Your task to perform on an android device: toggle notification dots Image 0: 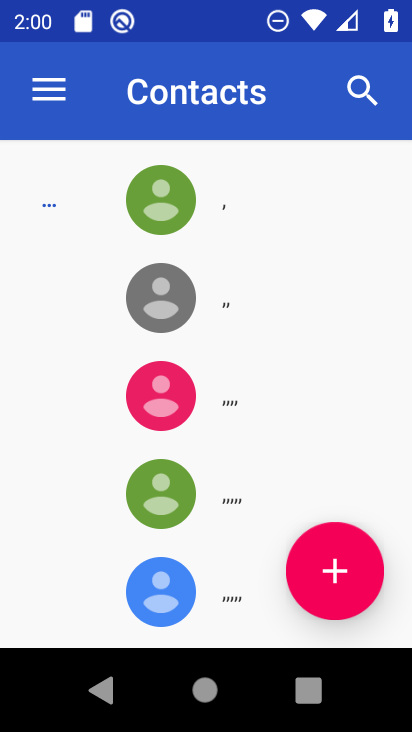
Step 0: press home button
Your task to perform on an android device: toggle notification dots Image 1: 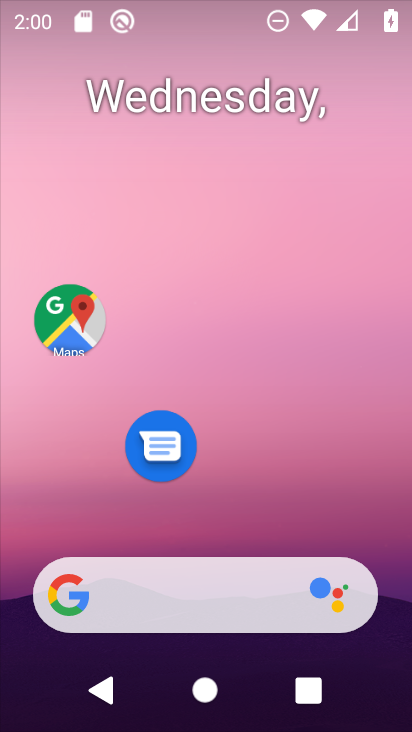
Step 1: drag from (200, 522) to (214, 0)
Your task to perform on an android device: toggle notification dots Image 2: 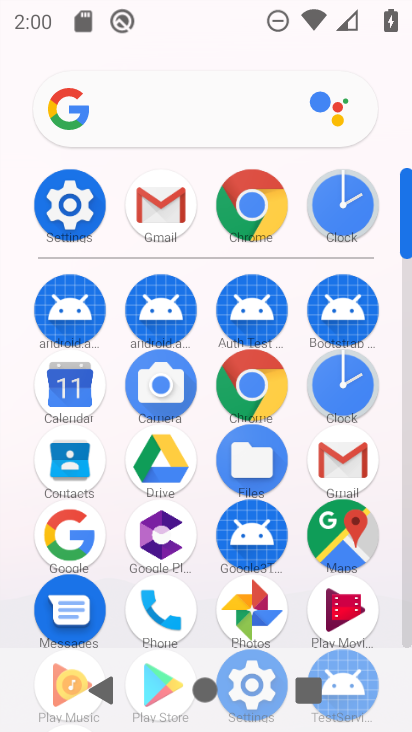
Step 2: click (407, 449)
Your task to perform on an android device: toggle notification dots Image 3: 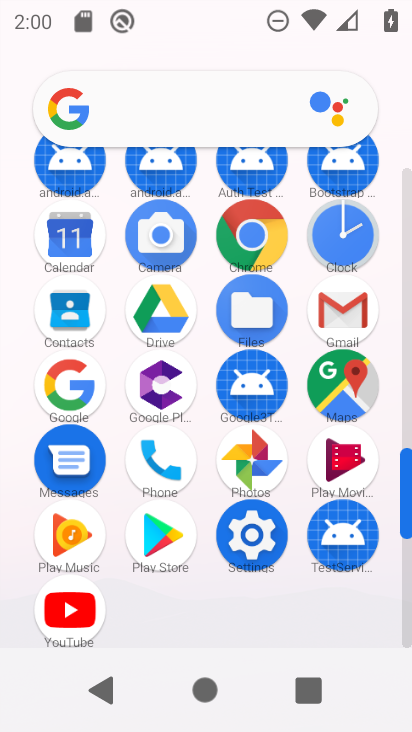
Step 3: click (248, 559)
Your task to perform on an android device: toggle notification dots Image 4: 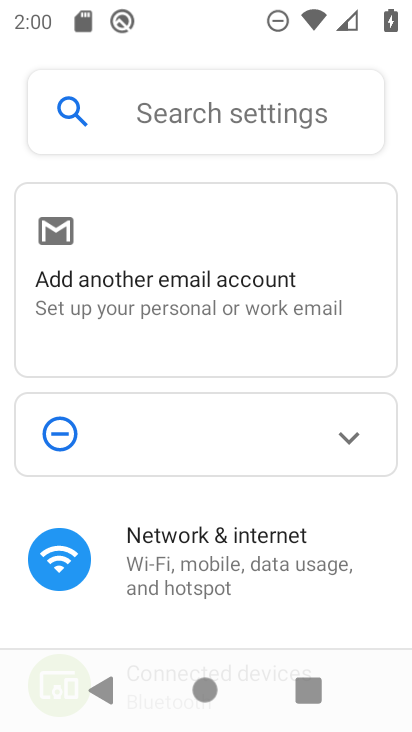
Step 4: drag from (193, 613) to (209, 318)
Your task to perform on an android device: toggle notification dots Image 5: 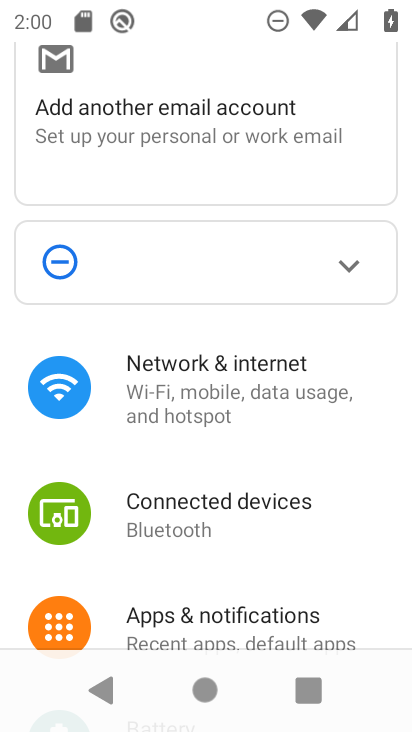
Step 5: drag from (209, 318) to (213, 226)
Your task to perform on an android device: toggle notification dots Image 6: 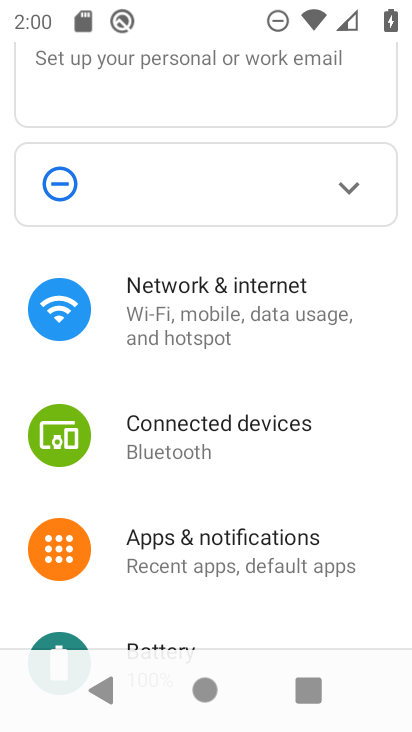
Step 6: drag from (175, 400) to (256, 5)
Your task to perform on an android device: toggle notification dots Image 7: 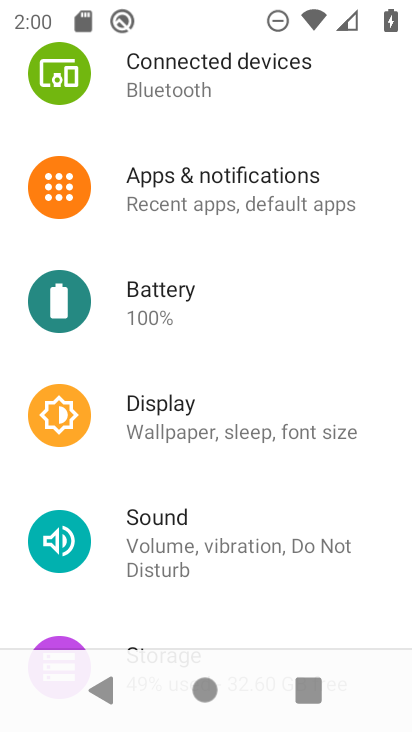
Step 7: click (139, 213)
Your task to perform on an android device: toggle notification dots Image 8: 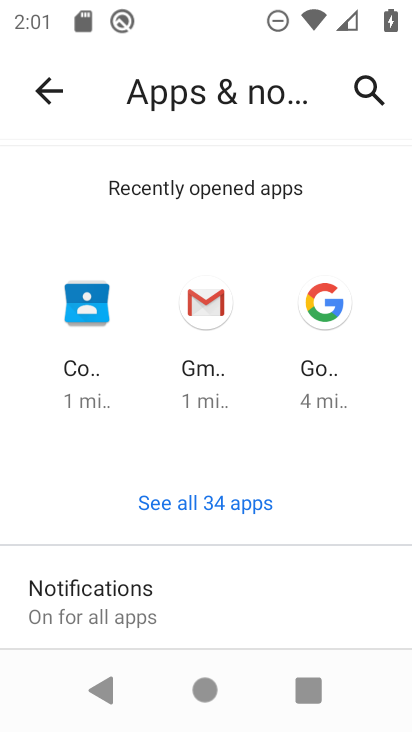
Step 8: drag from (99, 499) to (171, 136)
Your task to perform on an android device: toggle notification dots Image 9: 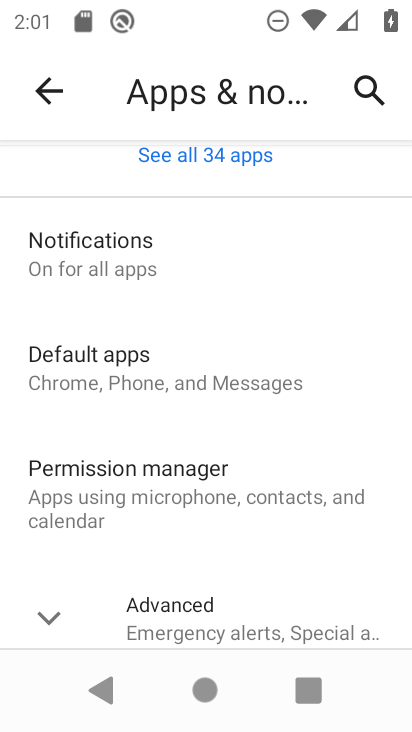
Step 9: drag from (157, 515) to (151, 249)
Your task to perform on an android device: toggle notification dots Image 10: 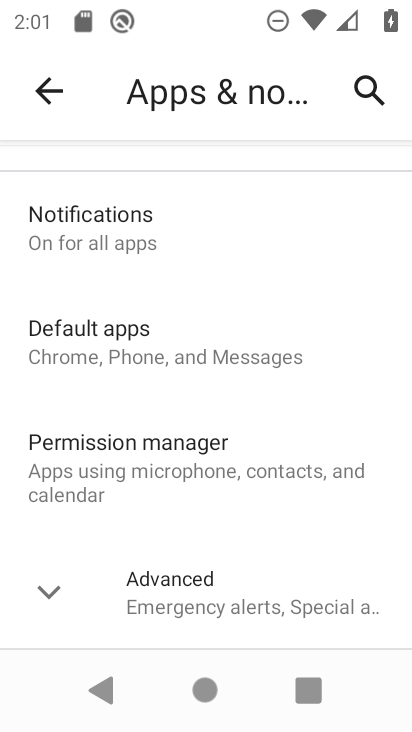
Step 10: click (173, 256)
Your task to perform on an android device: toggle notification dots Image 11: 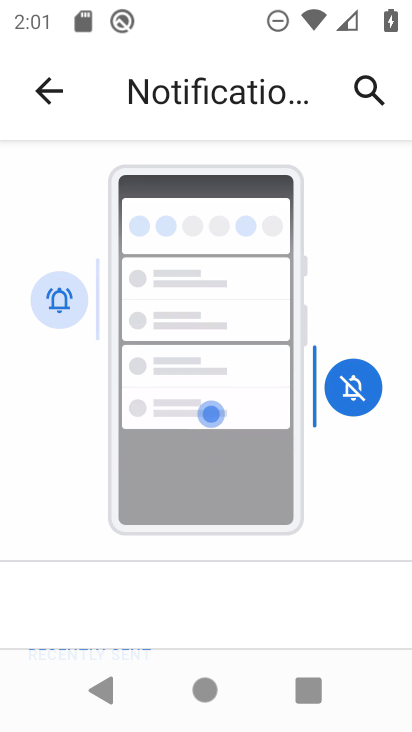
Step 11: drag from (114, 427) to (214, 29)
Your task to perform on an android device: toggle notification dots Image 12: 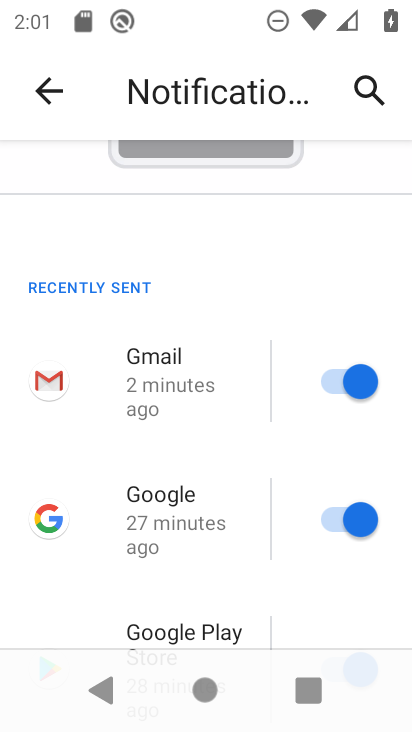
Step 12: drag from (184, 572) to (240, 150)
Your task to perform on an android device: toggle notification dots Image 13: 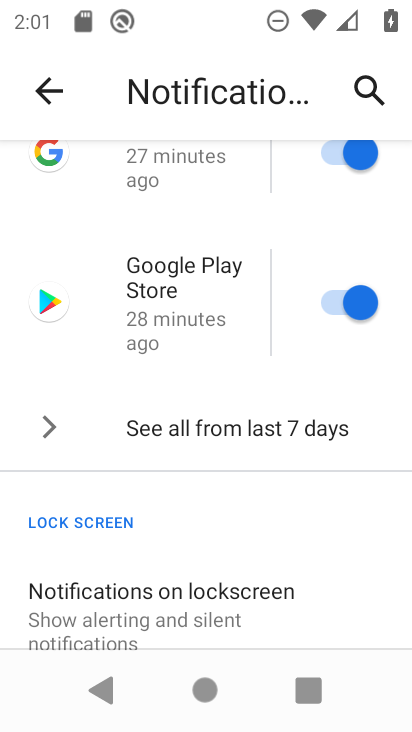
Step 13: drag from (107, 559) to (226, 125)
Your task to perform on an android device: toggle notification dots Image 14: 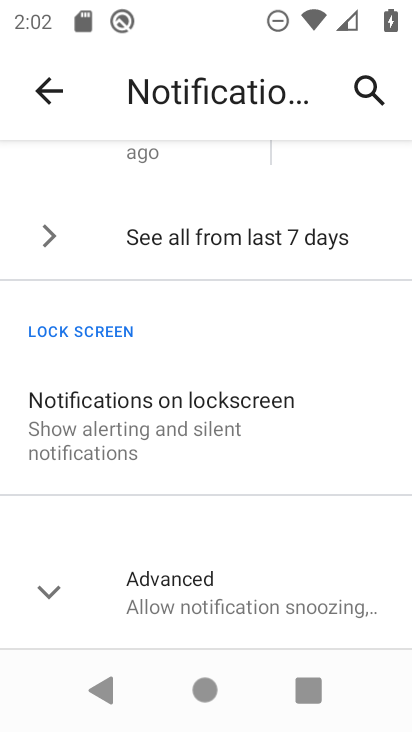
Step 14: drag from (182, 516) to (191, 242)
Your task to perform on an android device: toggle notification dots Image 15: 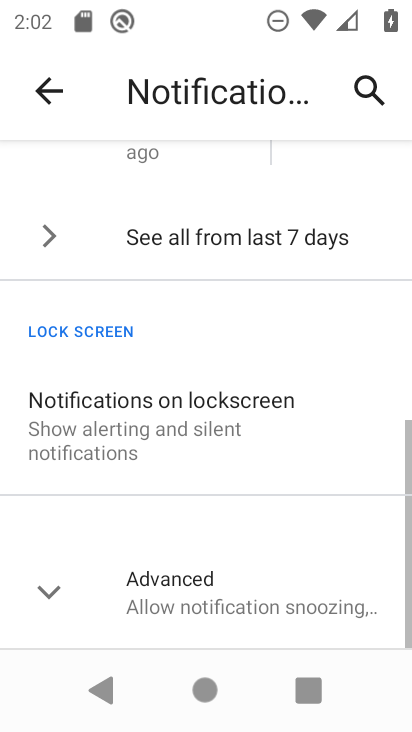
Step 15: click (191, 242)
Your task to perform on an android device: toggle notification dots Image 16: 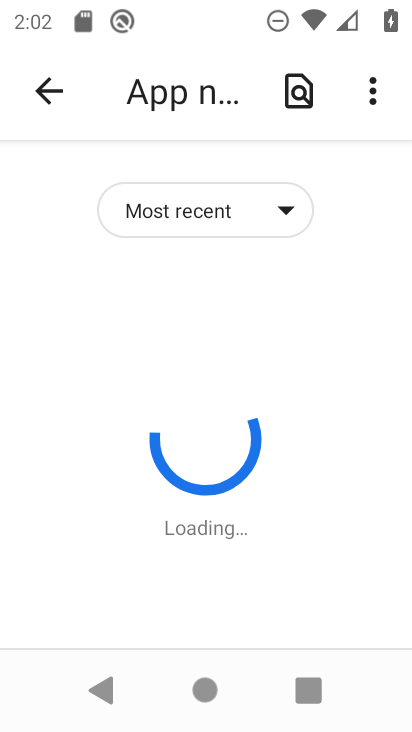
Step 16: click (178, 571)
Your task to perform on an android device: toggle notification dots Image 17: 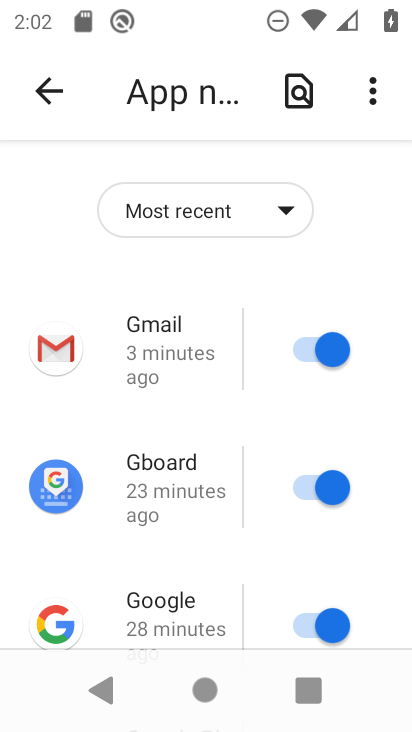
Step 17: drag from (178, 571) to (228, 102)
Your task to perform on an android device: toggle notification dots Image 18: 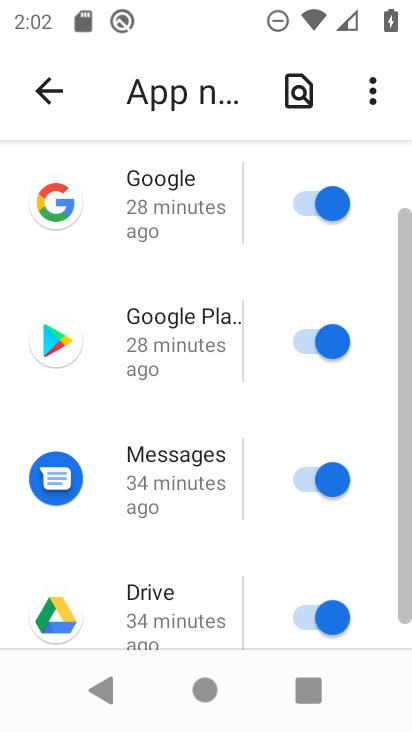
Step 18: click (69, 94)
Your task to perform on an android device: toggle notification dots Image 19: 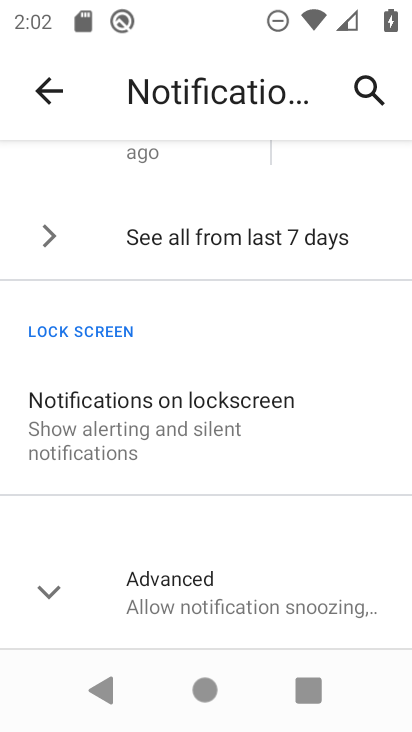
Step 19: drag from (199, 587) to (217, 429)
Your task to perform on an android device: toggle notification dots Image 20: 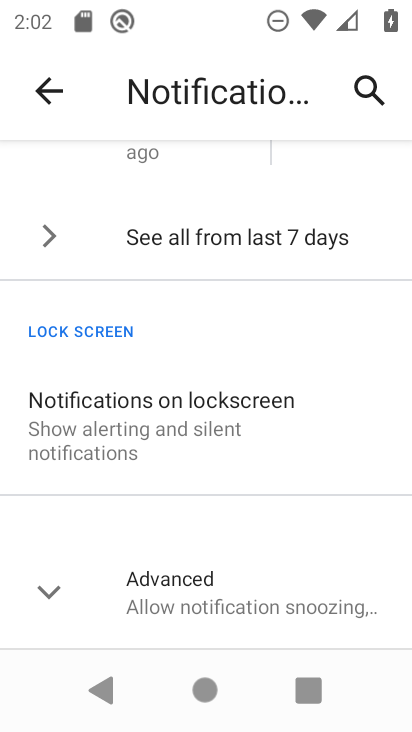
Step 20: click (132, 533)
Your task to perform on an android device: toggle notification dots Image 21: 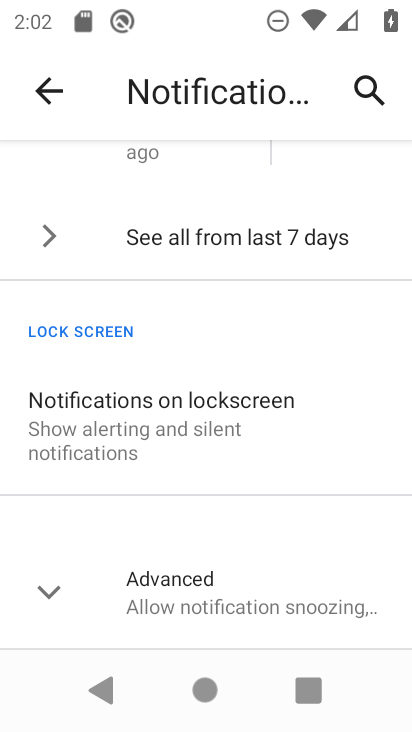
Step 21: drag from (132, 533) to (130, 457)
Your task to perform on an android device: toggle notification dots Image 22: 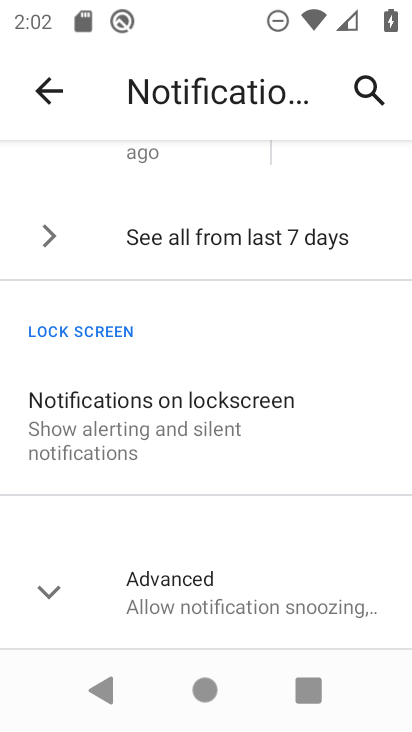
Step 22: click (131, 567)
Your task to perform on an android device: toggle notification dots Image 23: 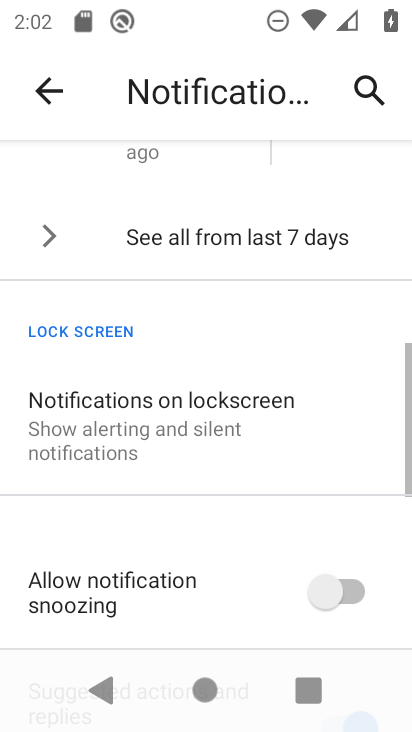
Step 23: drag from (131, 567) to (136, 345)
Your task to perform on an android device: toggle notification dots Image 24: 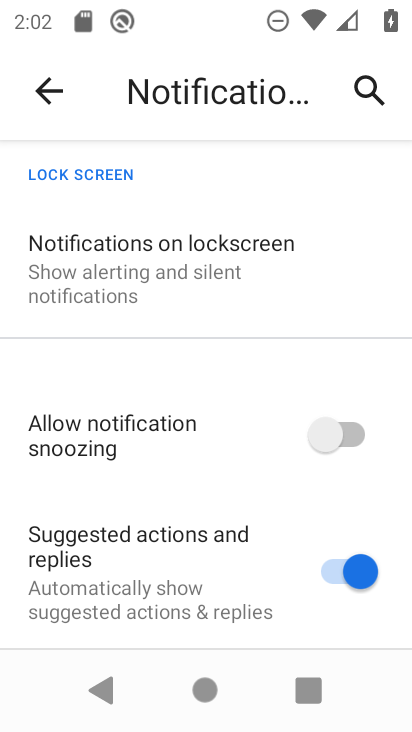
Step 24: drag from (50, 521) to (110, 249)
Your task to perform on an android device: toggle notification dots Image 25: 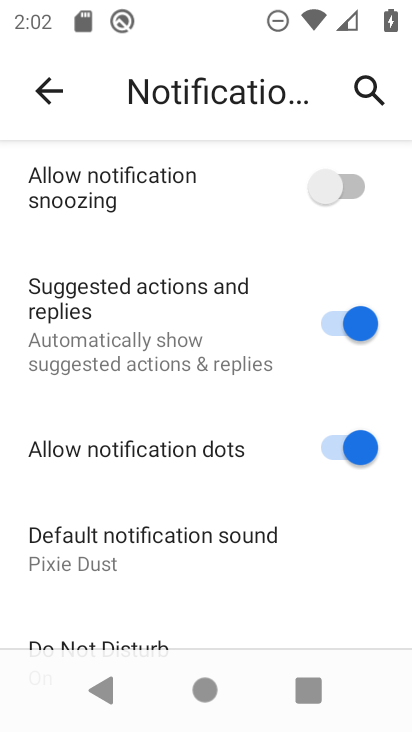
Step 25: click (299, 453)
Your task to perform on an android device: toggle notification dots Image 26: 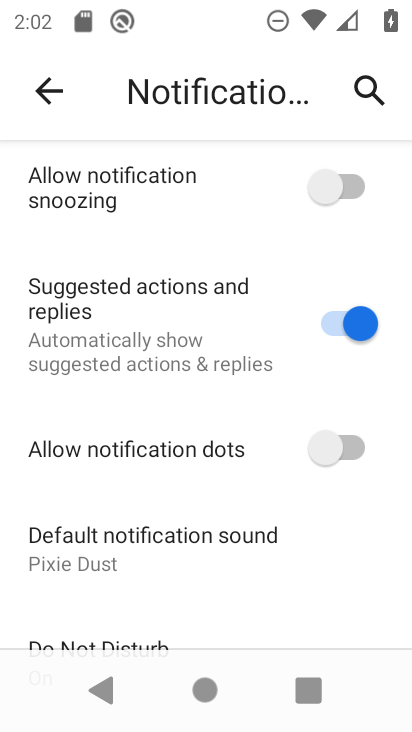
Step 26: task complete